Your task to perform on an android device: Open Youtube and go to "Your channel" Image 0: 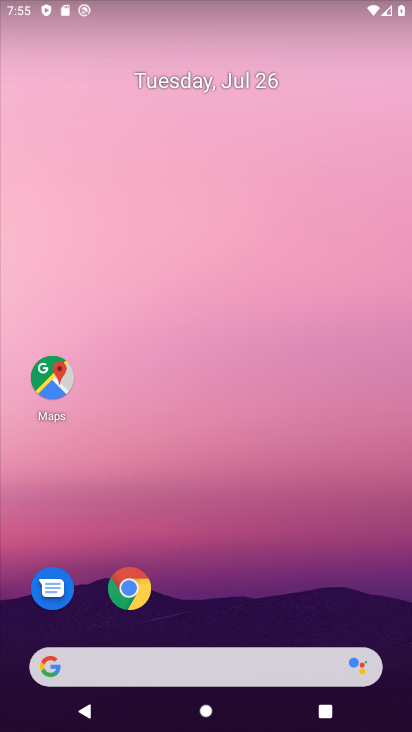
Step 0: drag from (342, 521) to (251, 16)
Your task to perform on an android device: Open Youtube and go to "Your channel" Image 1: 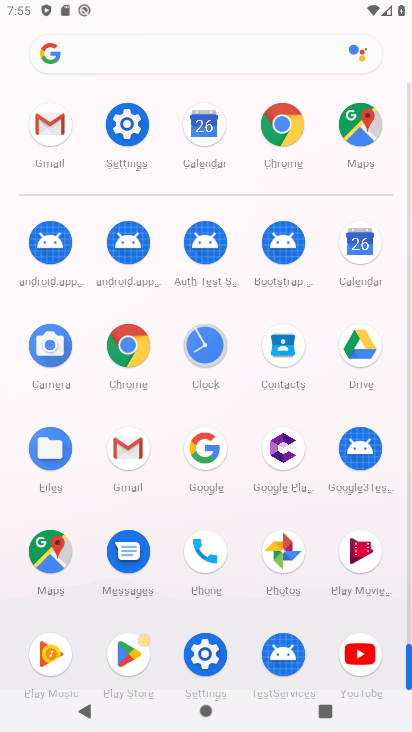
Step 1: click (366, 647)
Your task to perform on an android device: Open Youtube and go to "Your channel" Image 2: 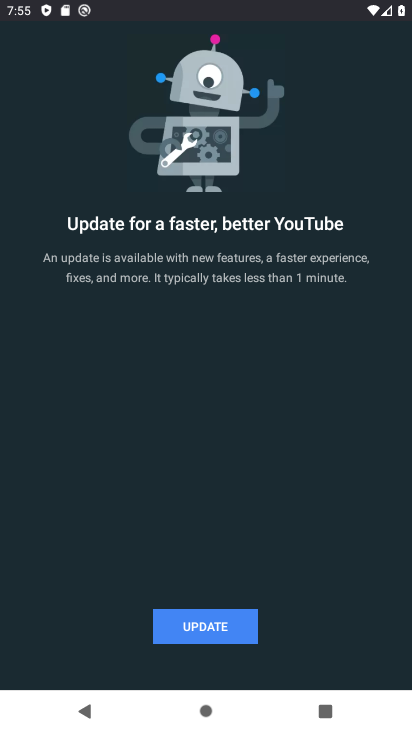
Step 2: click (180, 617)
Your task to perform on an android device: Open Youtube and go to "Your channel" Image 3: 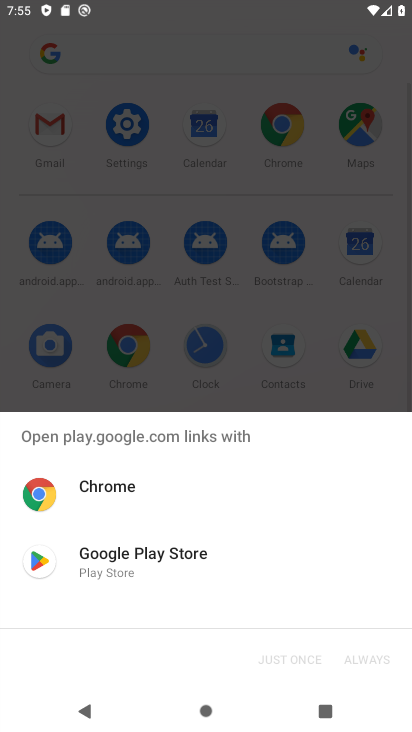
Step 3: click (172, 560)
Your task to perform on an android device: Open Youtube and go to "Your channel" Image 4: 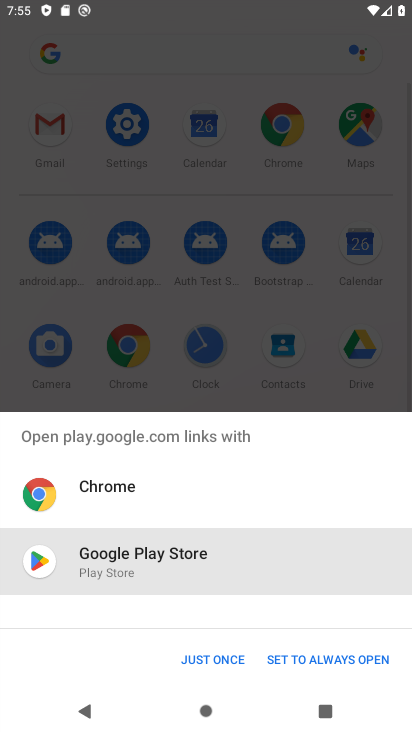
Step 4: click (219, 650)
Your task to perform on an android device: Open Youtube and go to "Your channel" Image 5: 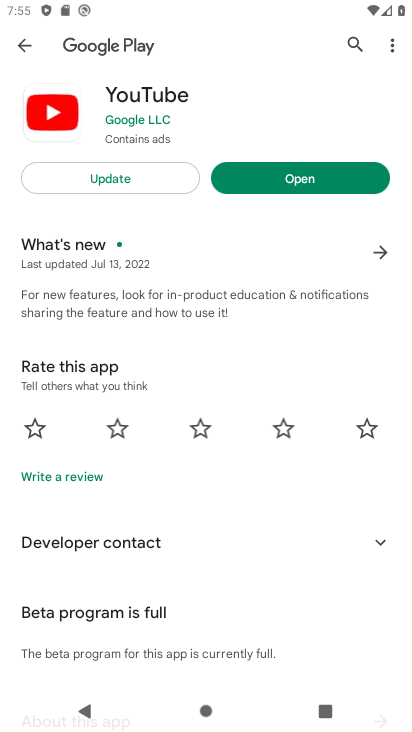
Step 5: click (160, 181)
Your task to perform on an android device: Open Youtube and go to "Your channel" Image 6: 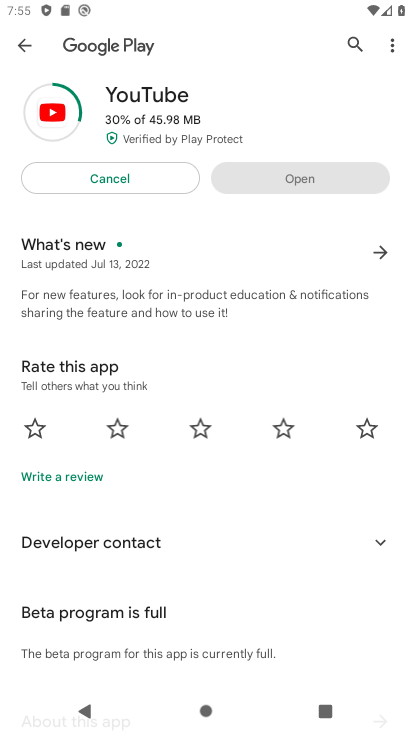
Step 6: task complete